Your task to perform on an android device: Open maps Image 0: 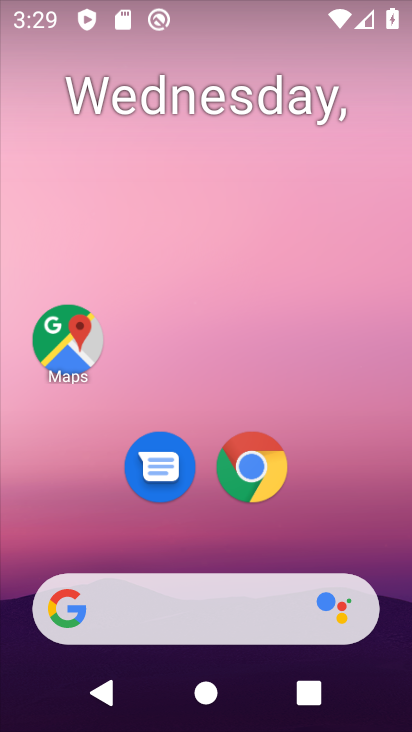
Step 0: click (63, 355)
Your task to perform on an android device: Open maps Image 1: 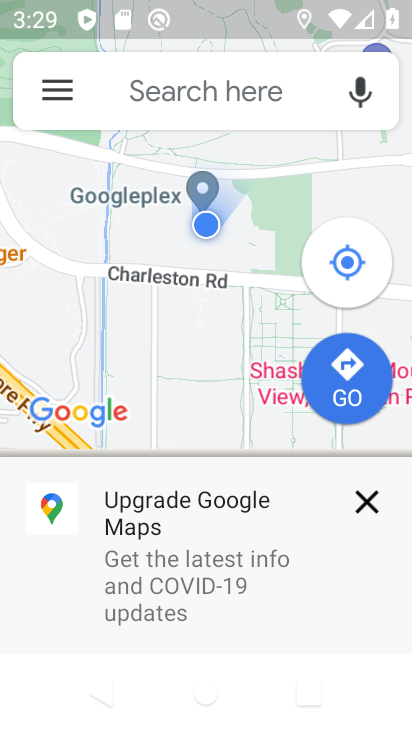
Step 1: task complete